Your task to perform on an android device: change text size in settings app Image 0: 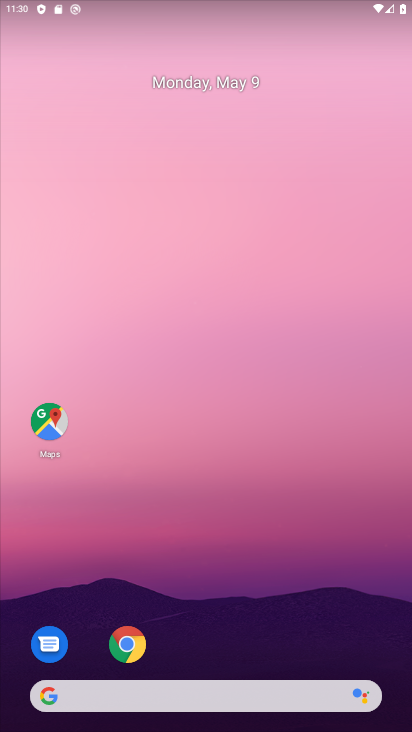
Step 0: drag from (9, 555) to (321, 132)
Your task to perform on an android device: change text size in settings app Image 1: 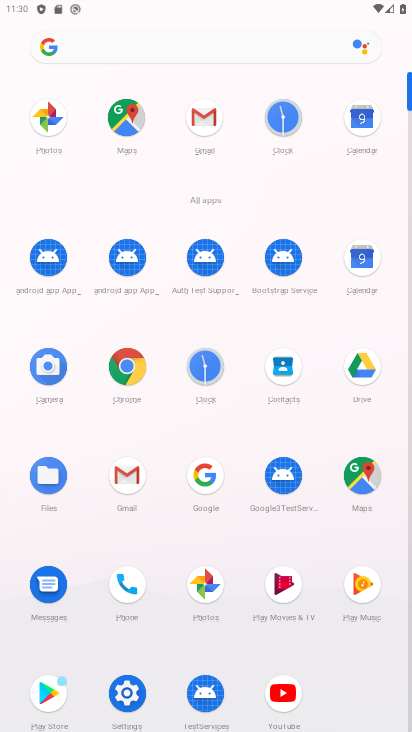
Step 1: click (122, 710)
Your task to perform on an android device: change text size in settings app Image 2: 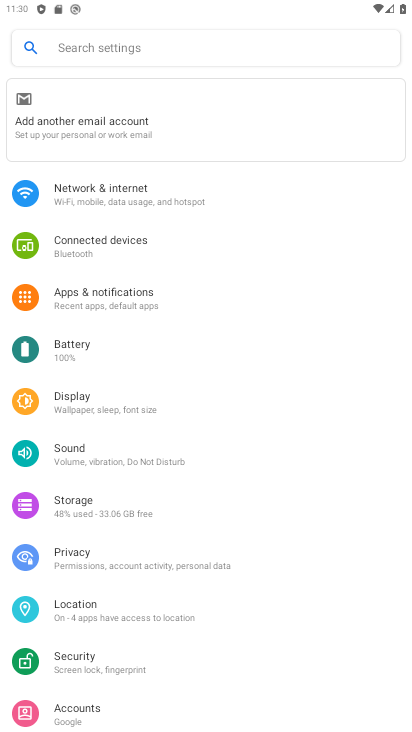
Step 2: click (149, 394)
Your task to perform on an android device: change text size in settings app Image 3: 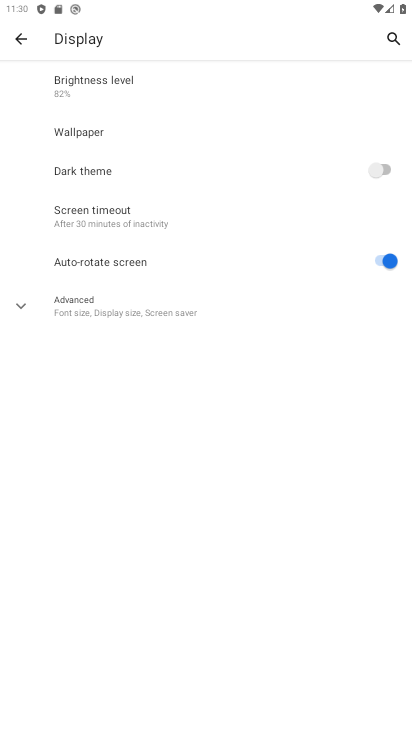
Step 3: click (118, 312)
Your task to perform on an android device: change text size in settings app Image 4: 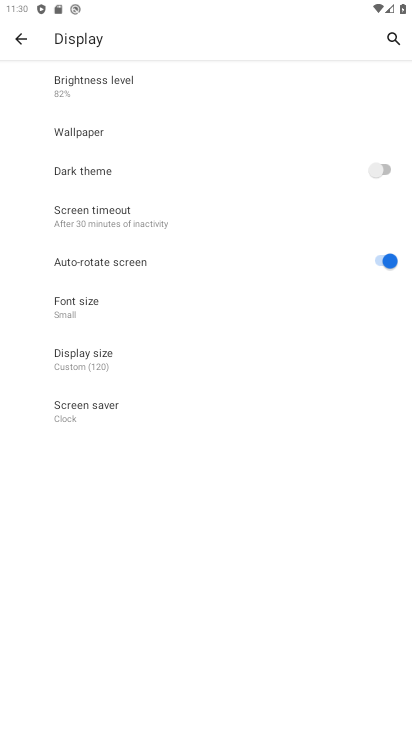
Step 4: click (121, 299)
Your task to perform on an android device: change text size in settings app Image 5: 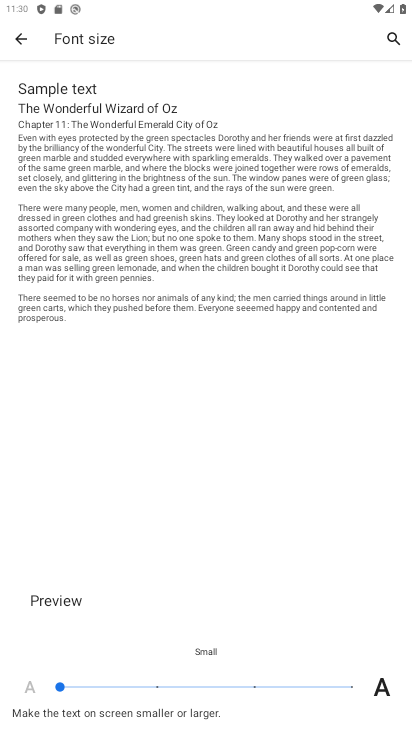
Step 5: click (154, 683)
Your task to perform on an android device: change text size in settings app Image 6: 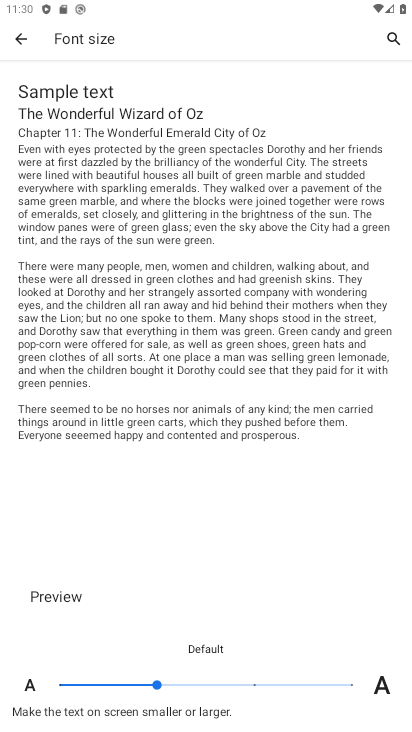
Step 6: click (254, 685)
Your task to perform on an android device: change text size in settings app Image 7: 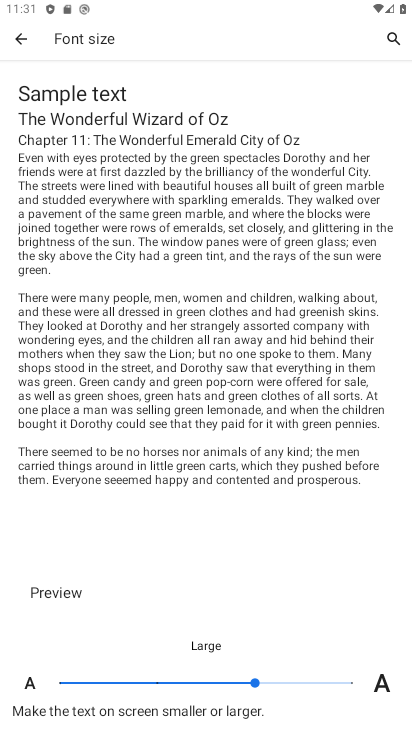
Step 7: click (354, 680)
Your task to perform on an android device: change text size in settings app Image 8: 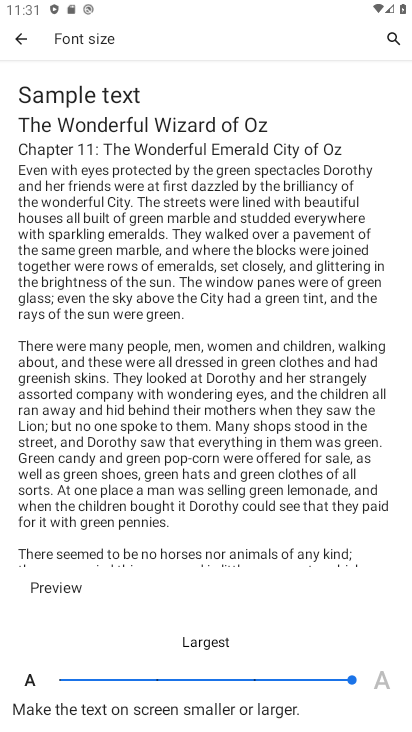
Step 8: task complete